Your task to perform on an android device: Is it going to rain this weekend? Image 0: 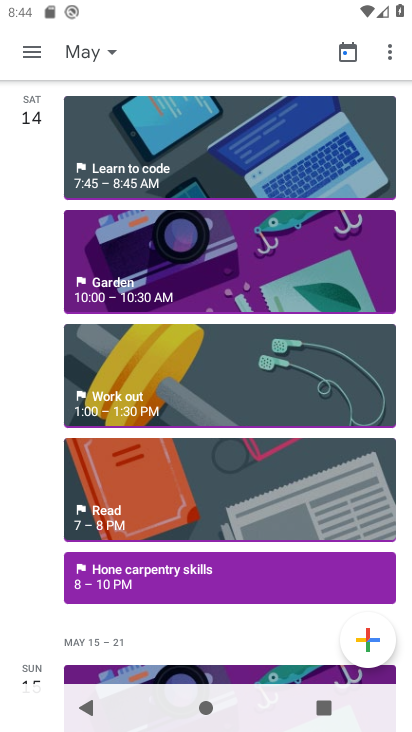
Step 0: press home button
Your task to perform on an android device: Is it going to rain this weekend? Image 1: 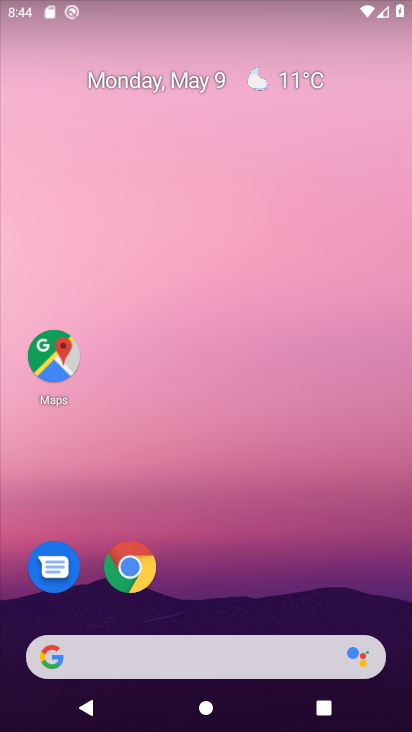
Step 1: click (265, 66)
Your task to perform on an android device: Is it going to rain this weekend? Image 2: 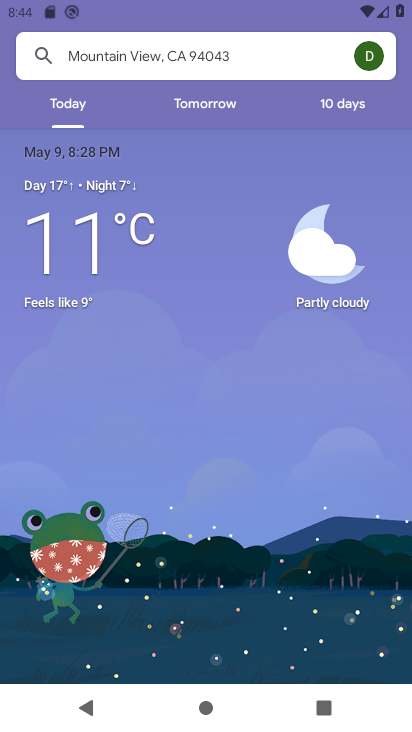
Step 2: click (334, 97)
Your task to perform on an android device: Is it going to rain this weekend? Image 3: 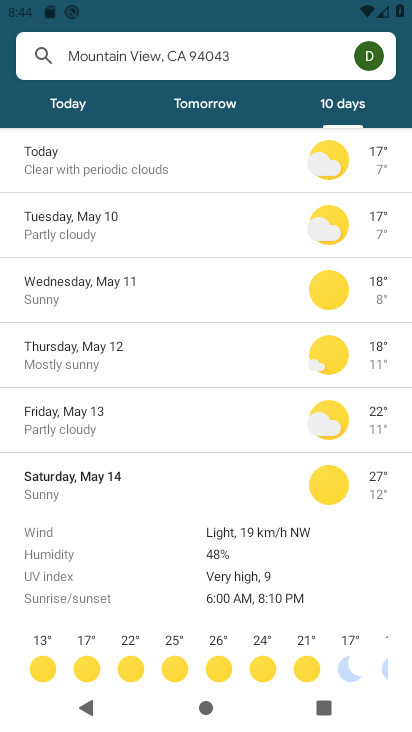
Step 3: task complete